Your task to perform on an android device: Open Yahoo.com Image 0: 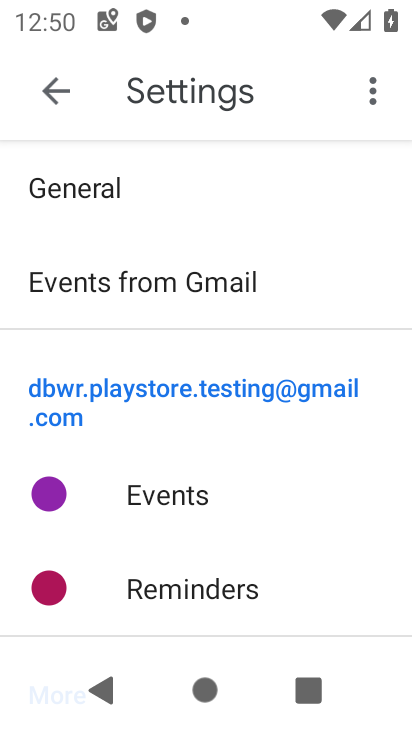
Step 0: press home button
Your task to perform on an android device: Open Yahoo.com Image 1: 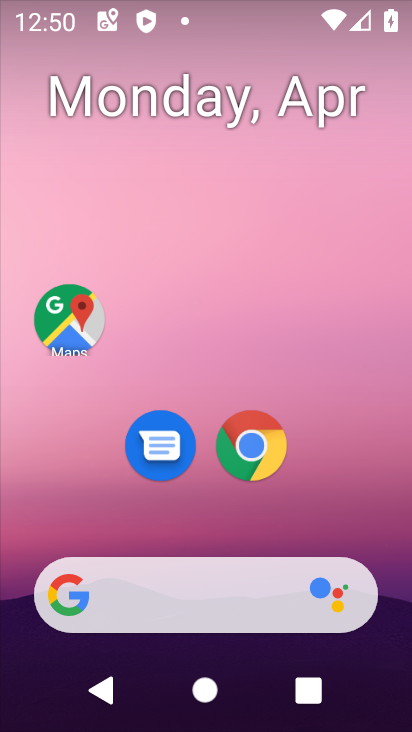
Step 1: drag from (369, 510) to (365, 78)
Your task to perform on an android device: Open Yahoo.com Image 2: 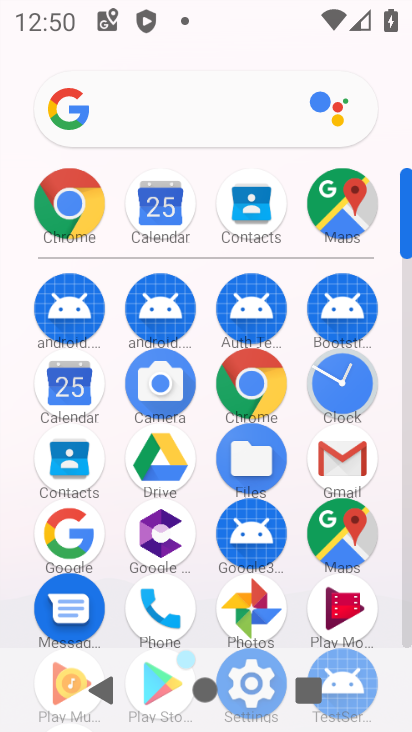
Step 2: click (264, 389)
Your task to perform on an android device: Open Yahoo.com Image 3: 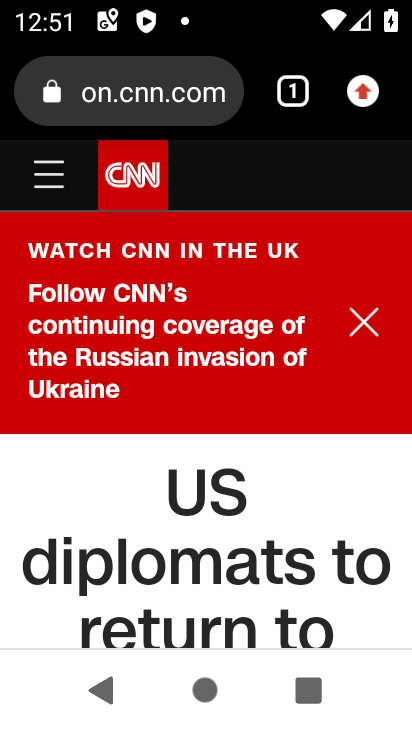
Step 3: click (193, 97)
Your task to perform on an android device: Open Yahoo.com Image 4: 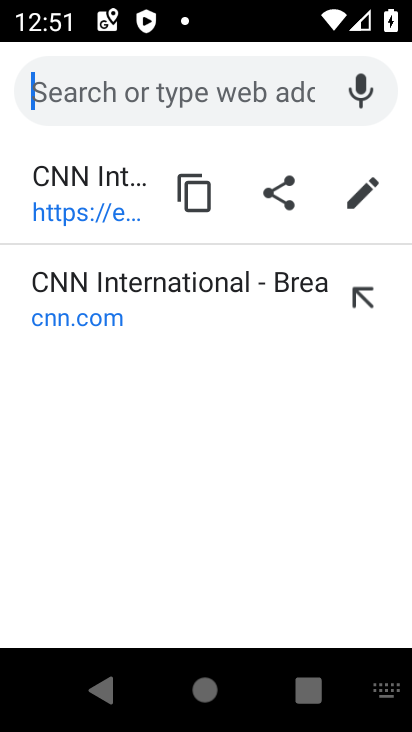
Step 4: type "yahoo.com"
Your task to perform on an android device: Open Yahoo.com Image 5: 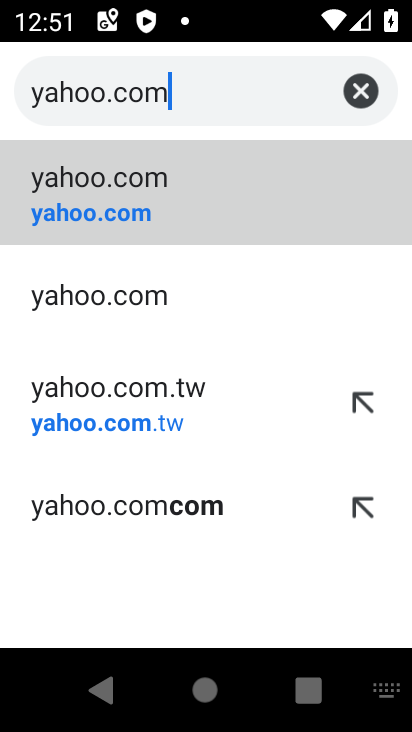
Step 5: click (190, 220)
Your task to perform on an android device: Open Yahoo.com Image 6: 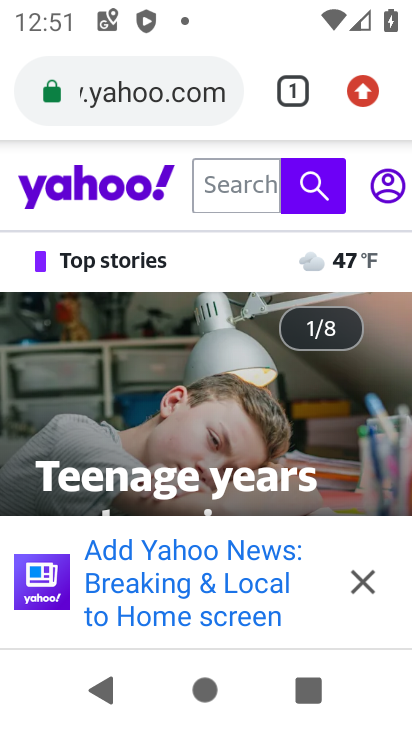
Step 6: task complete